Your task to perform on an android device: open sync settings in chrome Image 0: 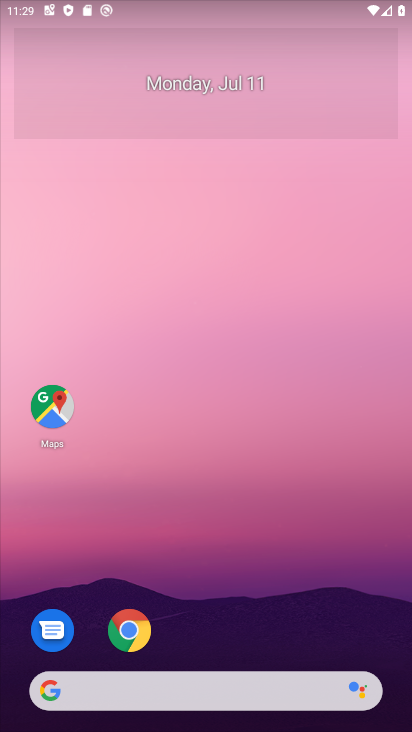
Step 0: click (125, 628)
Your task to perform on an android device: open sync settings in chrome Image 1: 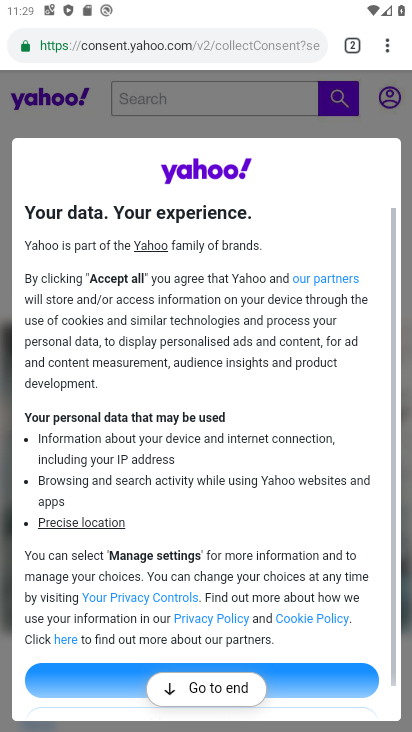
Step 1: click (382, 43)
Your task to perform on an android device: open sync settings in chrome Image 2: 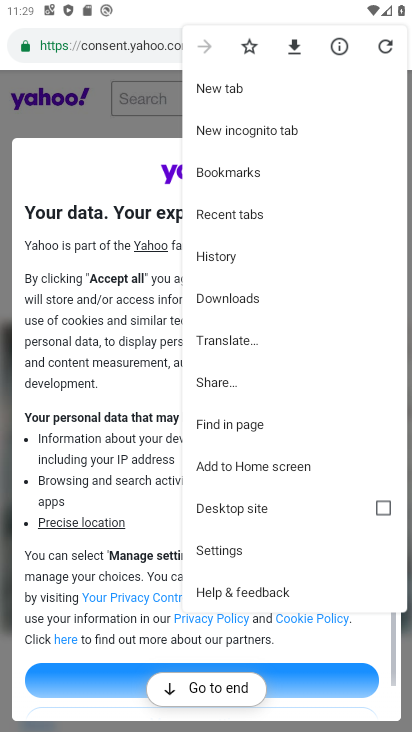
Step 2: click (235, 548)
Your task to perform on an android device: open sync settings in chrome Image 3: 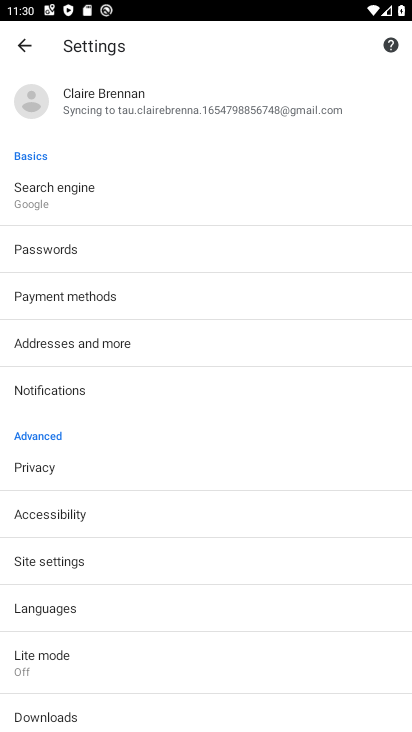
Step 3: drag from (80, 533) to (90, 242)
Your task to perform on an android device: open sync settings in chrome Image 4: 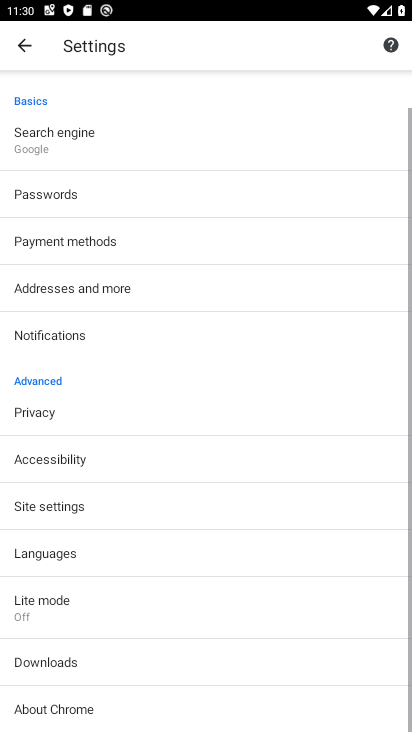
Step 4: click (74, 511)
Your task to perform on an android device: open sync settings in chrome Image 5: 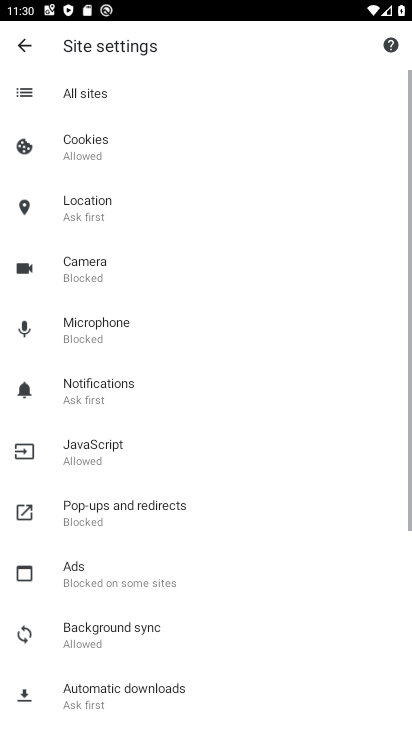
Step 5: drag from (214, 567) to (204, 44)
Your task to perform on an android device: open sync settings in chrome Image 6: 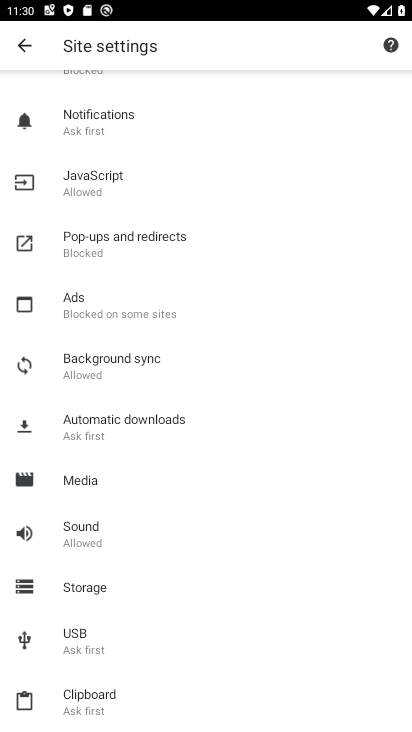
Step 6: click (101, 386)
Your task to perform on an android device: open sync settings in chrome Image 7: 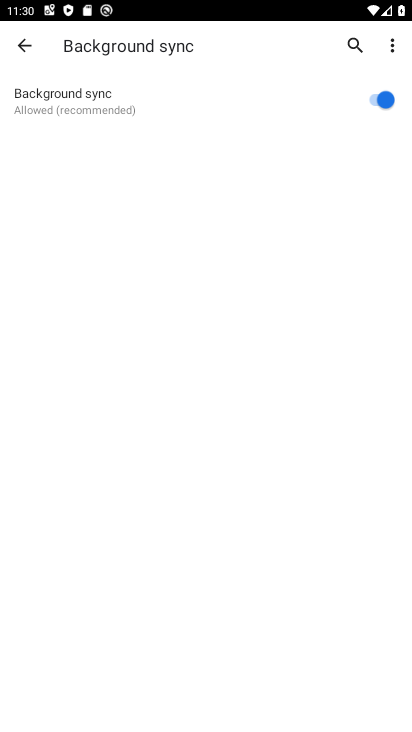
Step 7: task complete